Your task to perform on an android device: Open calendar and show me the second week of next month Image 0: 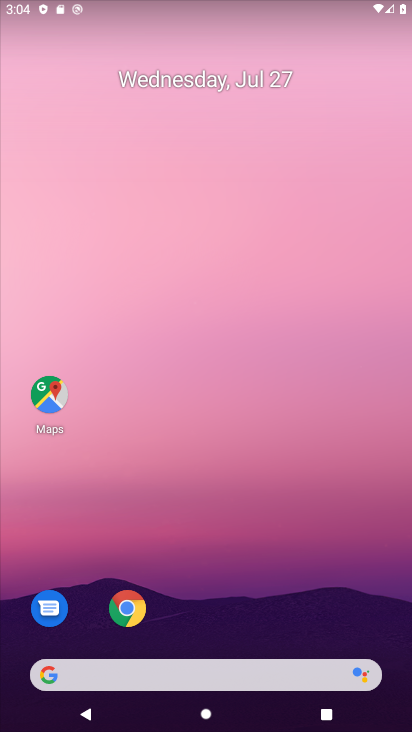
Step 0: drag from (240, 726) to (240, 218)
Your task to perform on an android device: Open calendar and show me the second week of next month Image 1: 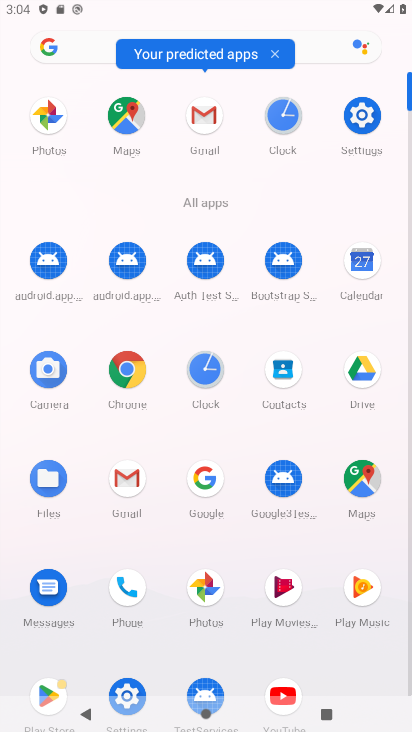
Step 1: drag from (241, 726) to (238, 385)
Your task to perform on an android device: Open calendar and show me the second week of next month Image 2: 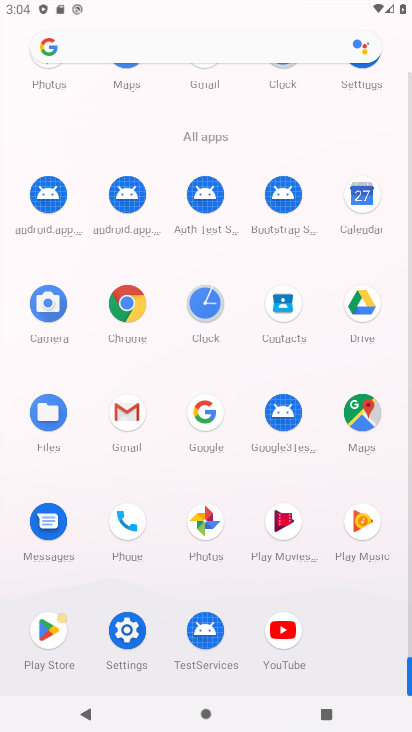
Step 2: click (364, 193)
Your task to perform on an android device: Open calendar and show me the second week of next month Image 3: 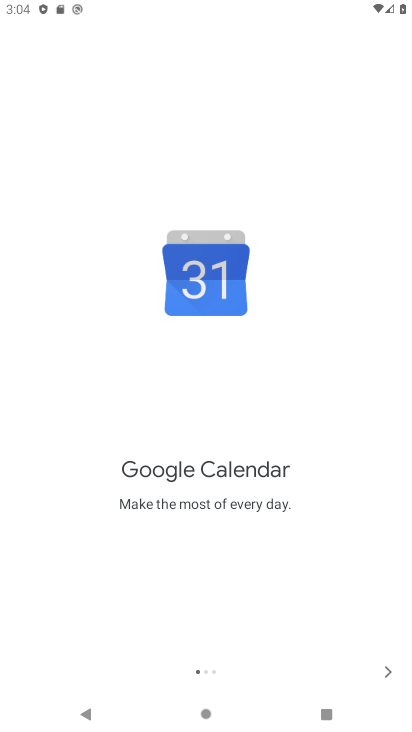
Step 3: click (386, 671)
Your task to perform on an android device: Open calendar and show me the second week of next month Image 4: 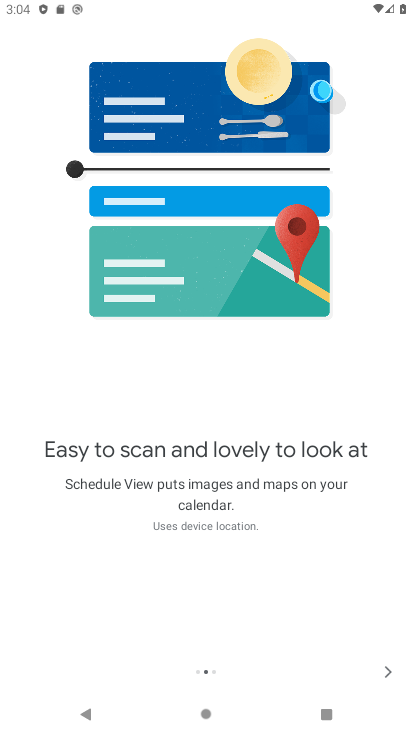
Step 4: click (390, 671)
Your task to perform on an android device: Open calendar and show me the second week of next month Image 5: 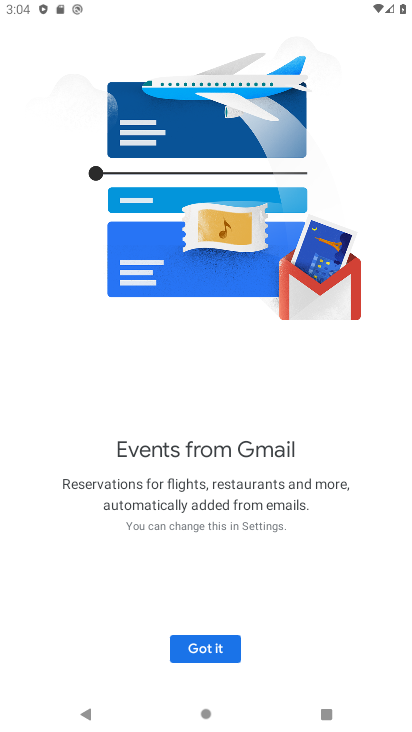
Step 5: click (209, 650)
Your task to perform on an android device: Open calendar and show me the second week of next month Image 6: 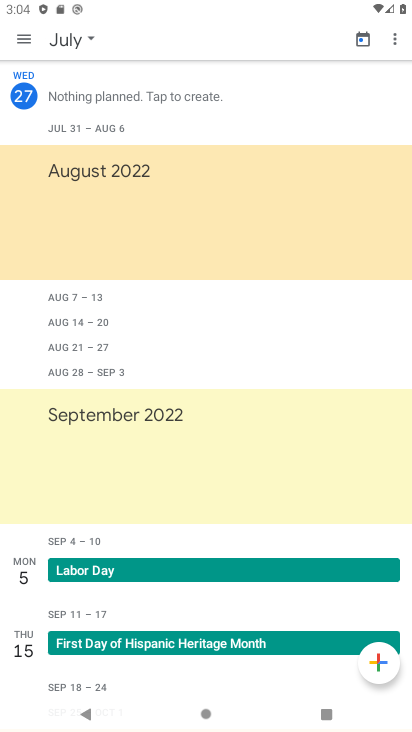
Step 6: click (93, 35)
Your task to perform on an android device: Open calendar and show me the second week of next month Image 7: 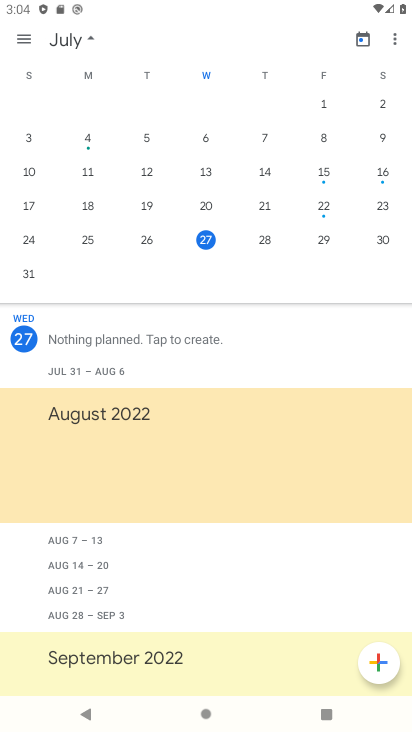
Step 7: drag from (329, 197) to (128, 197)
Your task to perform on an android device: Open calendar and show me the second week of next month Image 8: 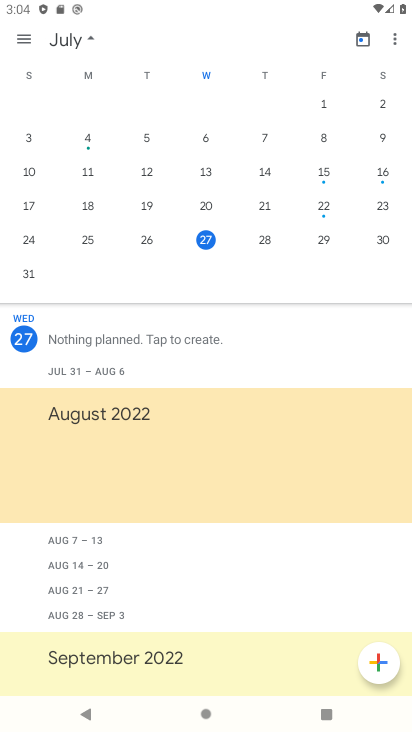
Step 8: drag from (383, 171) to (46, 165)
Your task to perform on an android device: Open calendar and show me the second week of next month Image 9: 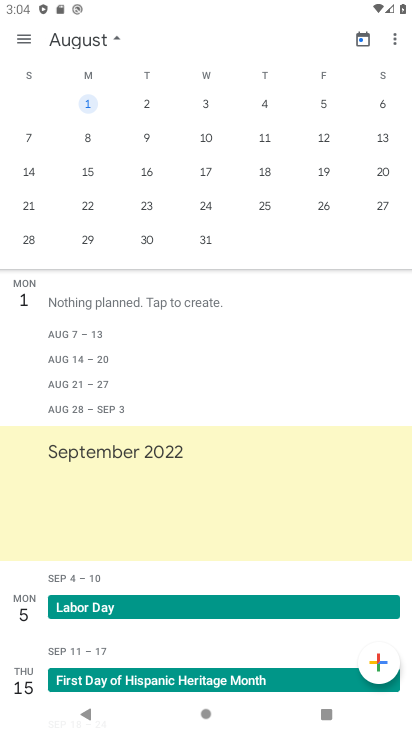
Step 9: click (87, 136)
Your task to perform on an android device: Open calendar and show me the second week of next month Image 10: 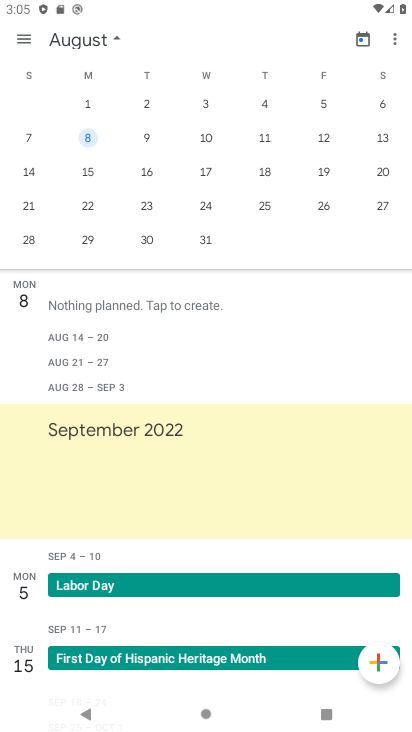
Step 10: click (23, 39)
Your task to perform on an android device: Open calendar and show me the second week of next month Image 11: 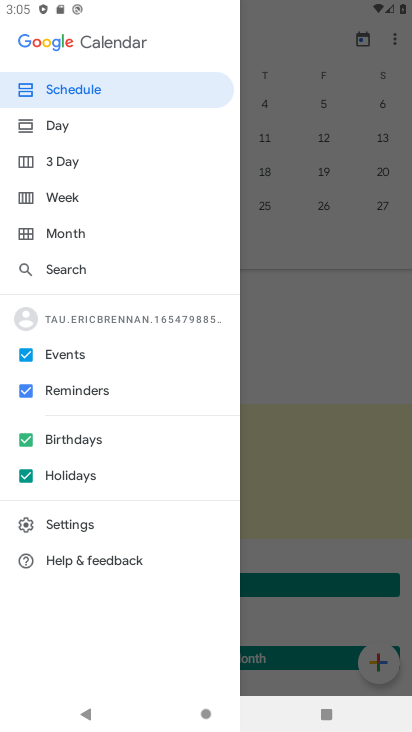
Step 11: click (62, 194)
Your task to perform on an android device: Open calendar and show me the second week of next month Image 12: 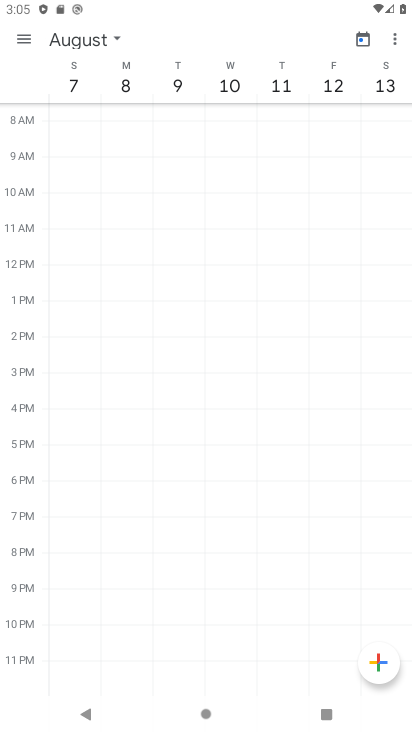
Step 12: task complete